Your task to perform on an android device: Open the calendar app, open the side menu, and click the "Day" option Image 0: 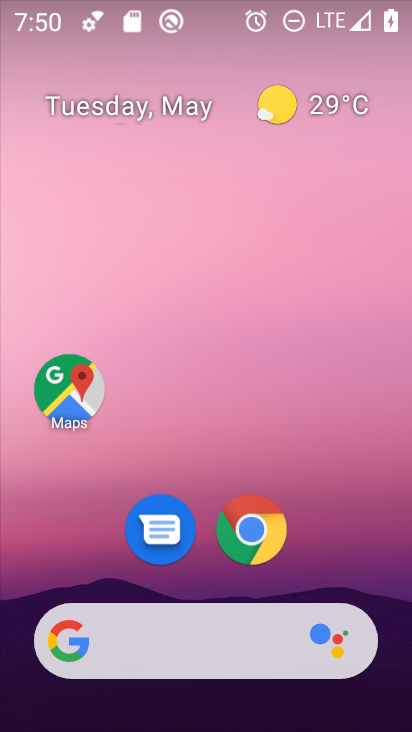
Step 0: drag from (378, 607) to (288, 113)
Your task to perform on an android device: Open the calendar app, open the side menu, and click the "Day" option Image 1: 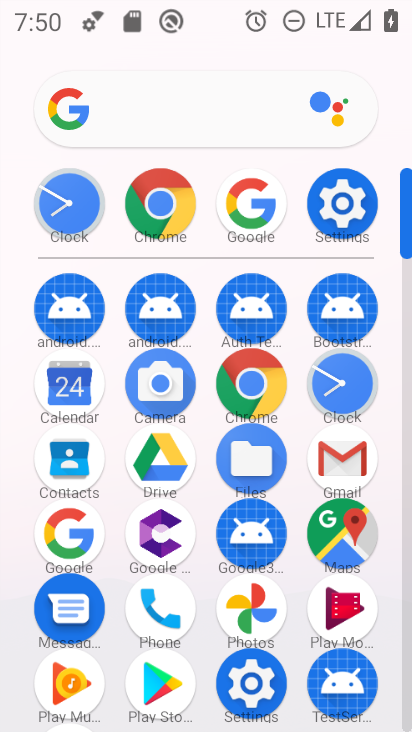
Step 1: click (65, 399)
Your task to perform on an android device: Open the calendar app, open the side menu, and click the "Day" option Image 2: 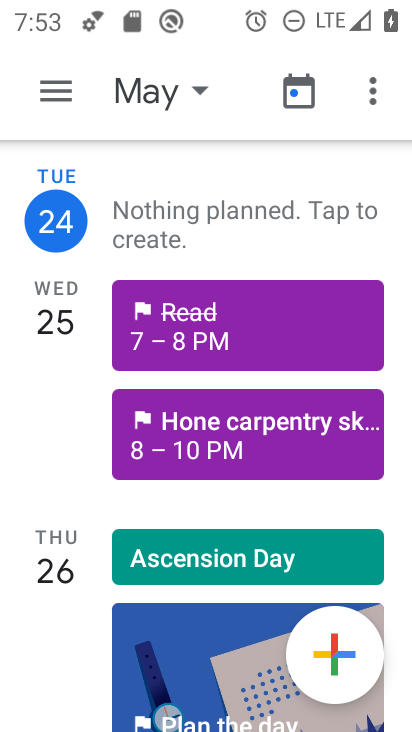
Step 2: click (87, 77)
Your task to perform on an android device: Open the calendar app, open the side menu, and click the "Day" option Image 3: 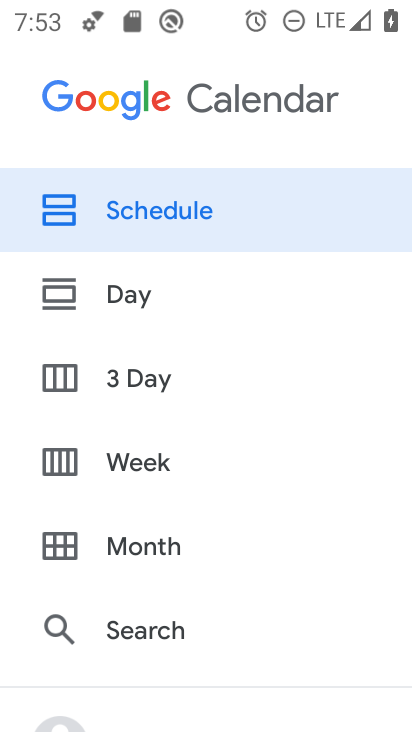
Step 3: click (176, 280)
Your task to perform on an android device: Open the calendar app, open the side menu, and click the "Day" option Image 4: 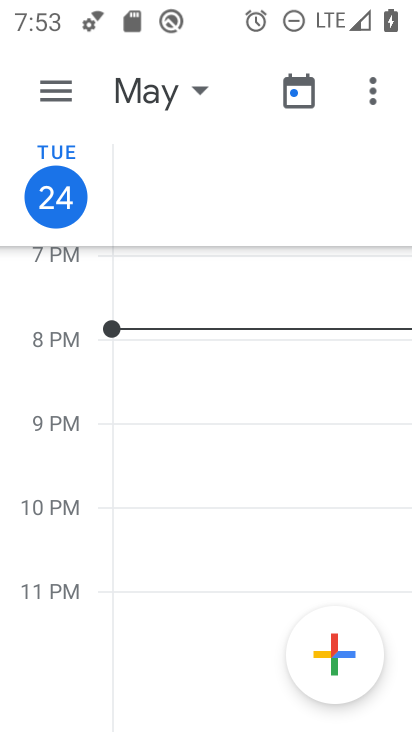
Step 4: task complete